Your task to perform on an android device: Open Wikipedia Image 0: 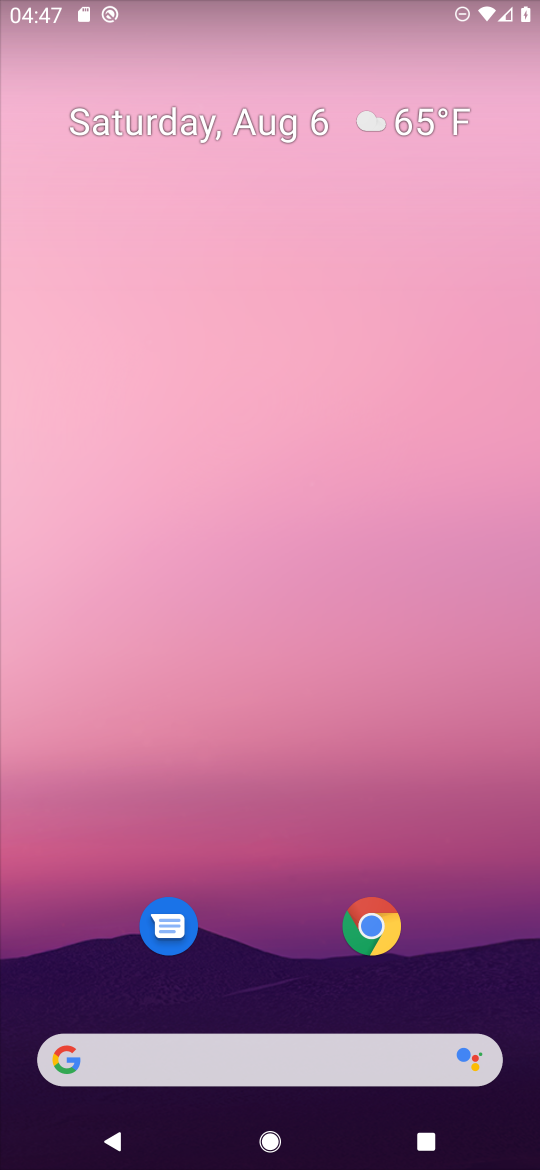
Step 0: click (370, 947)
Your task to perform on an android device: Open Wikipedia Image 1: 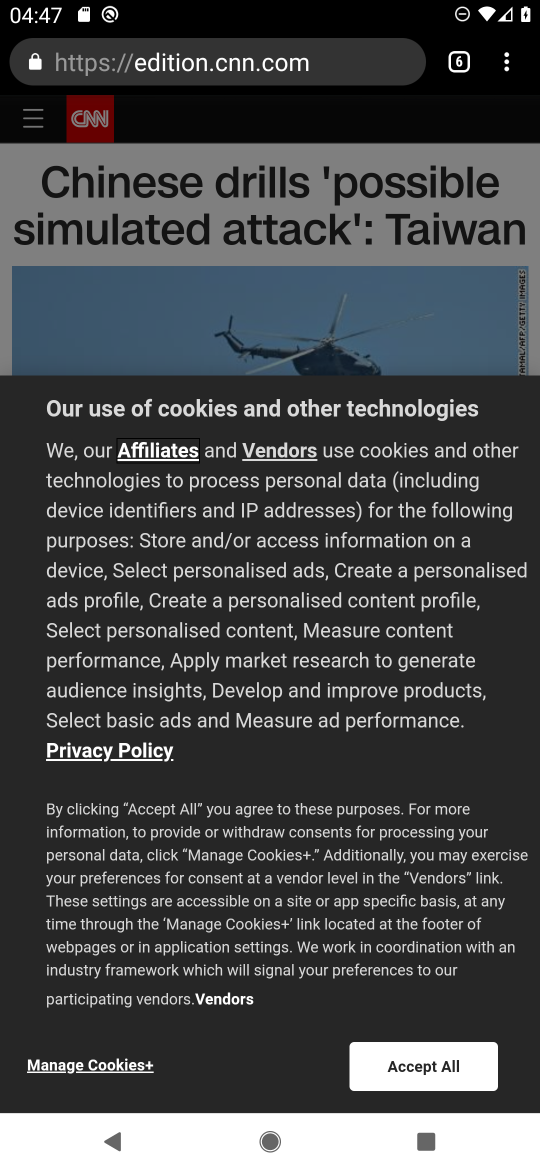
Step 1: click (459, 54)
Your task to perform on an android device: Open Wikipedia Image 2: 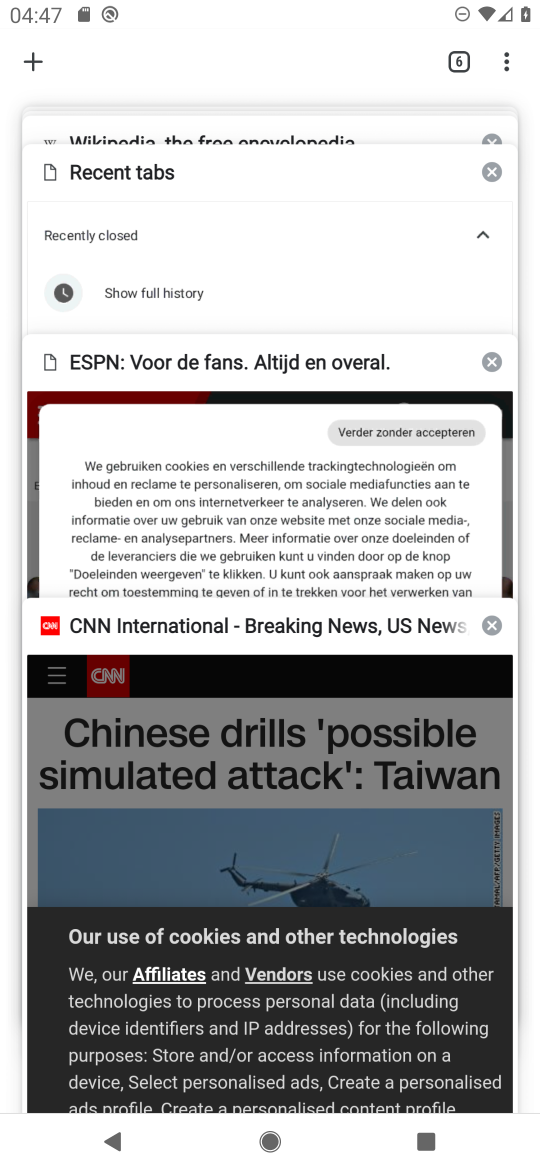
Step 2: click (27, 56)
Your task to perform on an android device: Open Wikipedia Image 3: 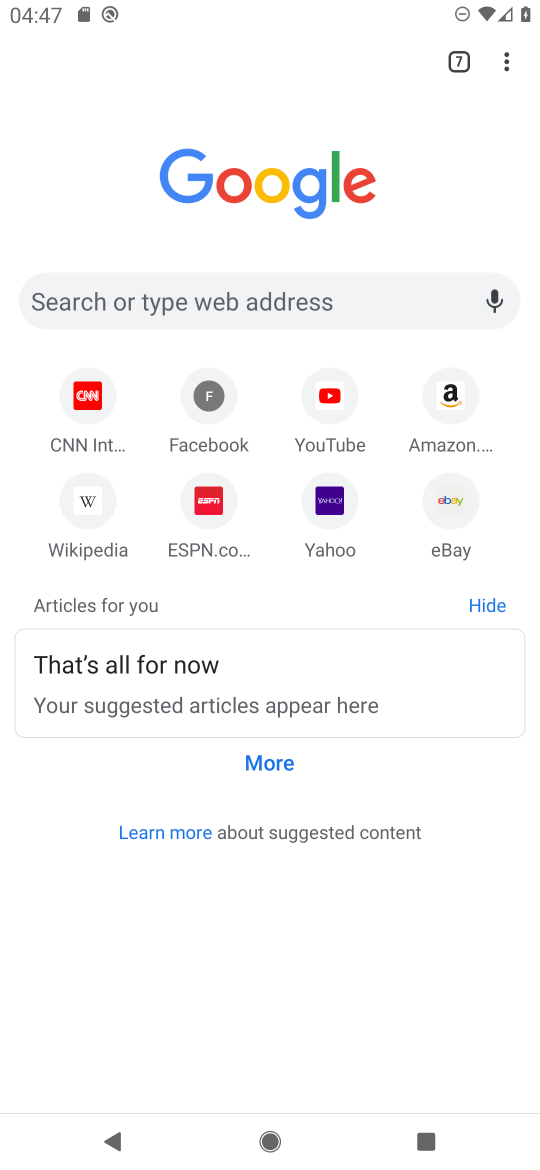
Step 3: click (59, 500)
Your task to perform on an android device: Open Wikipedia Image 4: 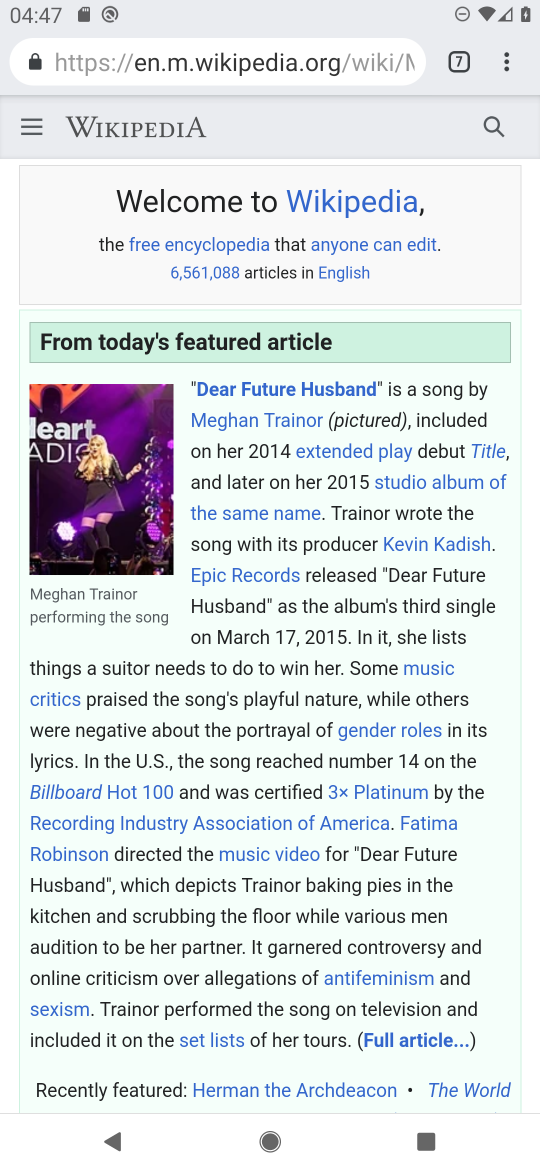
Step 4: task complete